Your task to perform on an android device: What's on my calendar today? Image 0: 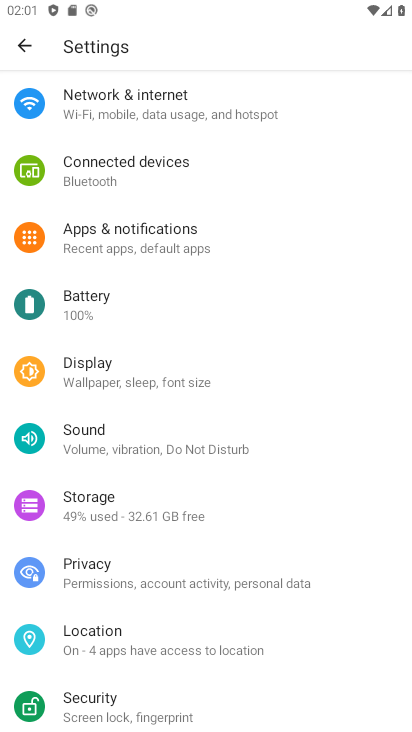
Step 0: press home button
Your task to perform on an android device: What's on my calendar today? Image 1: 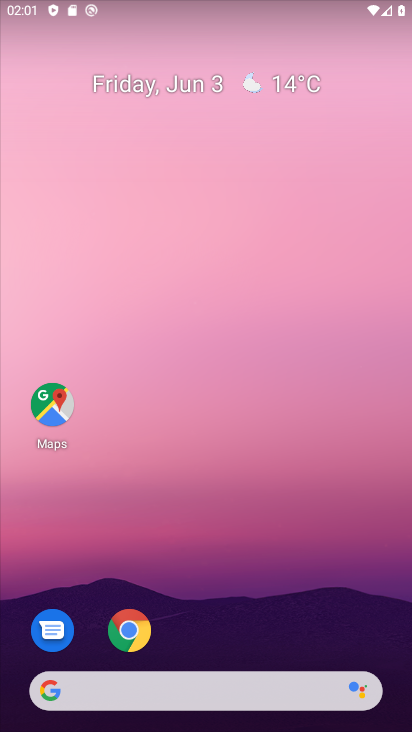
Step 1: drag from (391, 688) to (350, 155)
Your task to perform on an android device: What's on my calendar today? Image 2: 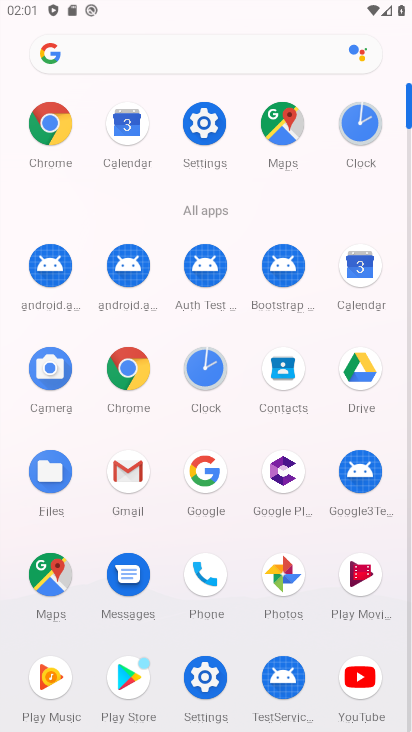
Step 2: click (376, 264)
Your task to perform on an android device: What's on my calendar today? Image 3: 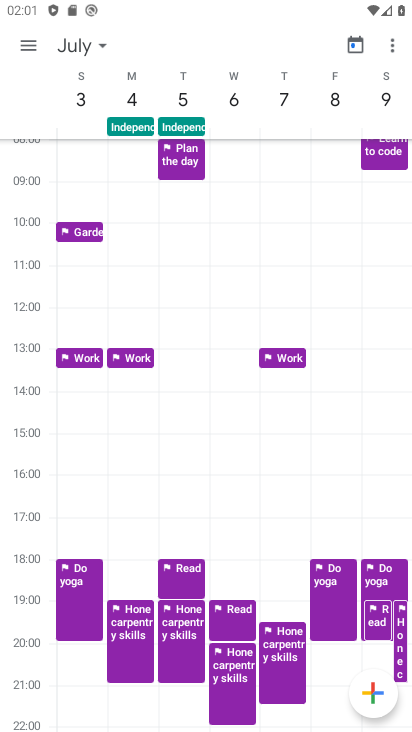
Step 3: click (99, 42)
Your task to perform on an android device: What's on my calendar today? Image 4: 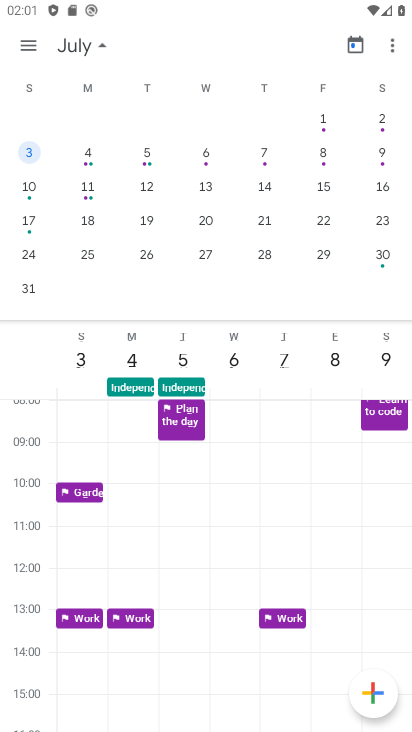
Step 4: drag from (66, 120) to (381, 133)
Your task to perform on an android device: What's on my calendar today? Image 5: 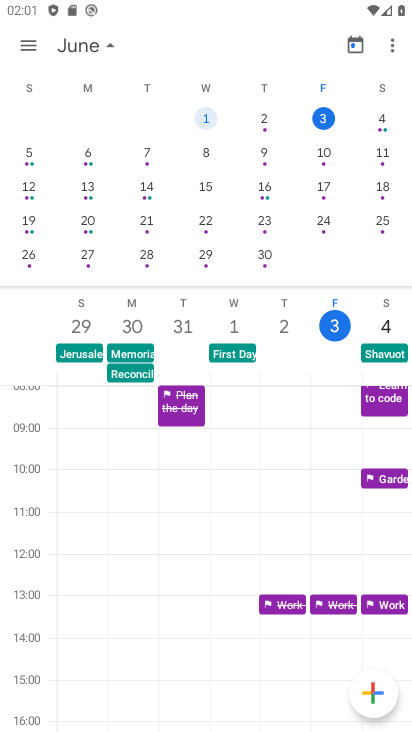
Step 5: click (324, 114)
Your task to perform on an android device: What's on my calendar today? Image 6: 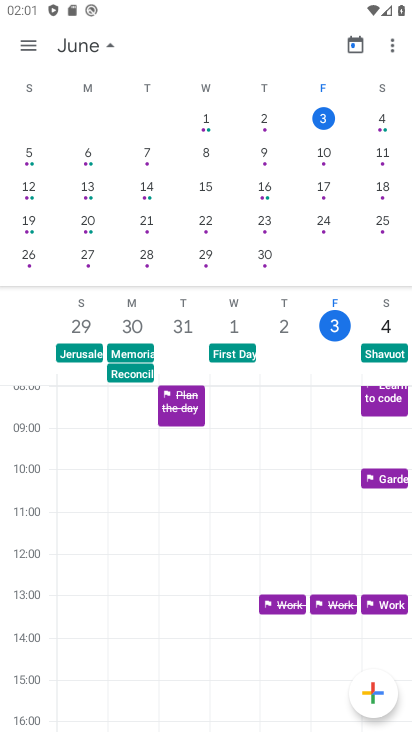
Step 6: click (26, 46)
Your task to perform on an android device: What's on my calendar today? Image 7: 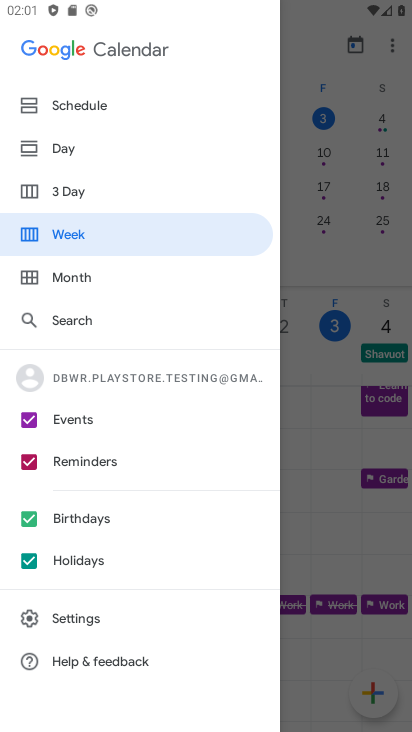
Step 7: click (70, 146)
Your task to perform on an android device: What's on my calendar today? Image 8: 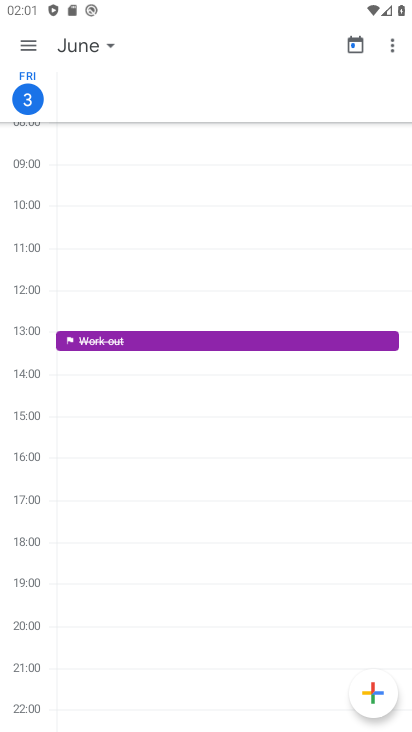
Step 8: task complete